Your task to perform on an android device: open a new tab in the chrome app Image 0: 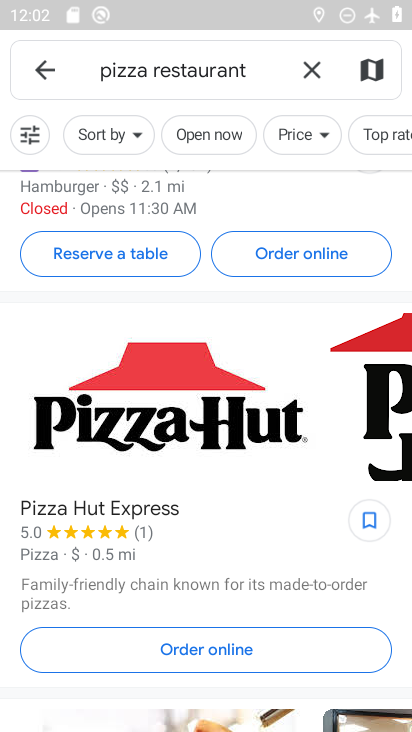
Step 0: press home button
Your task to perform on an android device: open a new tab in the chrome app Image 1: 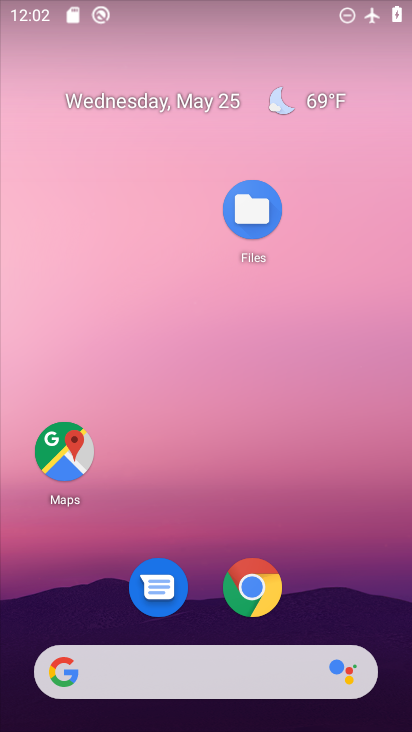
Step 1: click (251, 595)
Your task to perform on an android device: open a new tab in the chrome app Image 2: 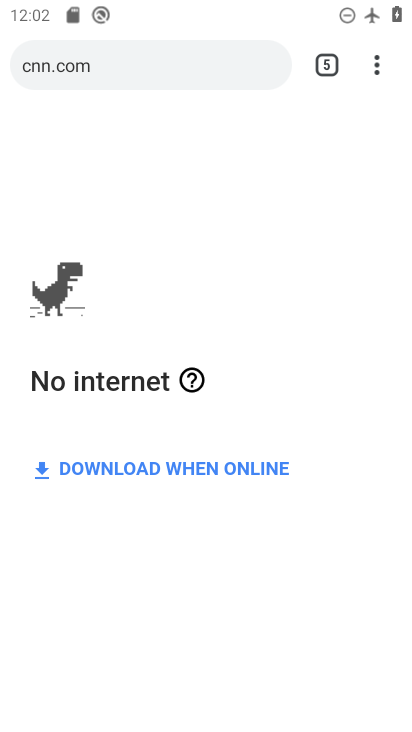
Step 2: click (323, 70)
Your task to perform on an android device: open a new tab in the chrome app Image 3: 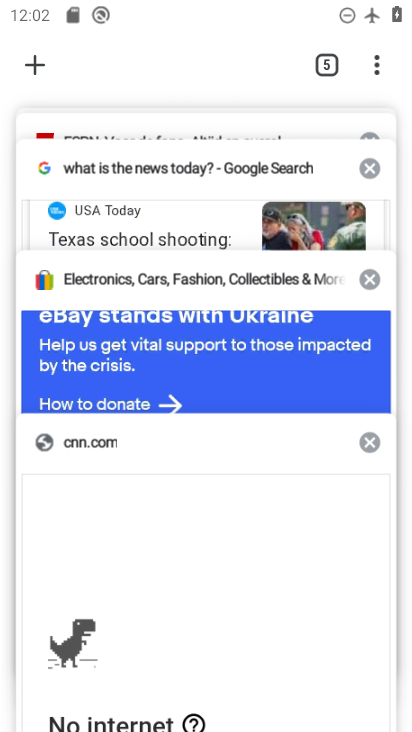
Step 3: click (27, 64)
Your task to perform on an android device: open a new tab in the chrome app Image 4: 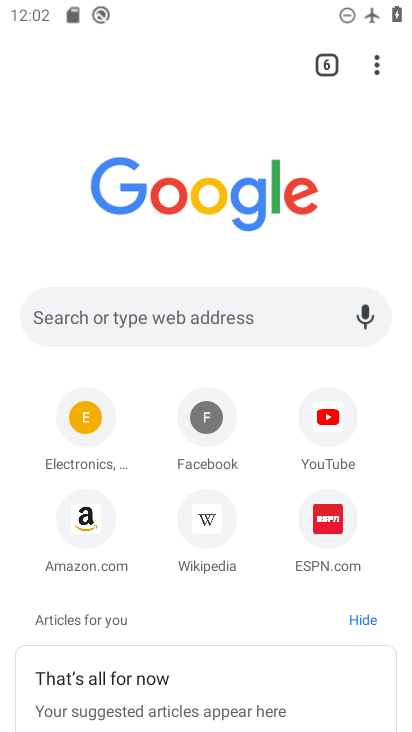
Step 4: task complete